Your task to perform on an android device: change notifications settings Image 0: 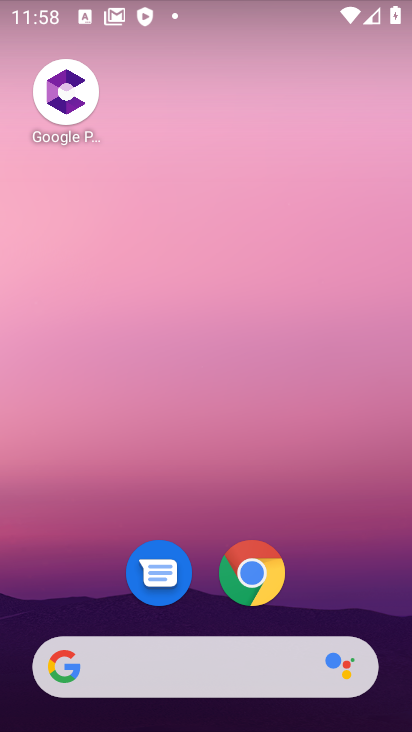
Step 0: drag from (289, 478) to (284, 192)
Your task to perform on an android device: change notifications settings Image 1: 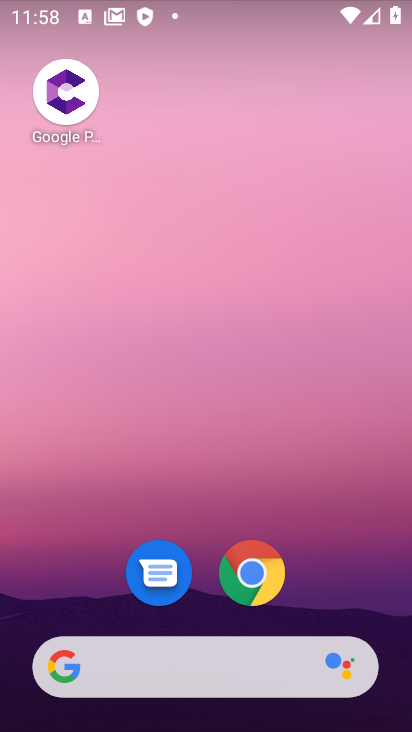
Step 1: drag from (333, 518) to (335, 0)
Your task to perform on an android device: change notifications settings Image 2: 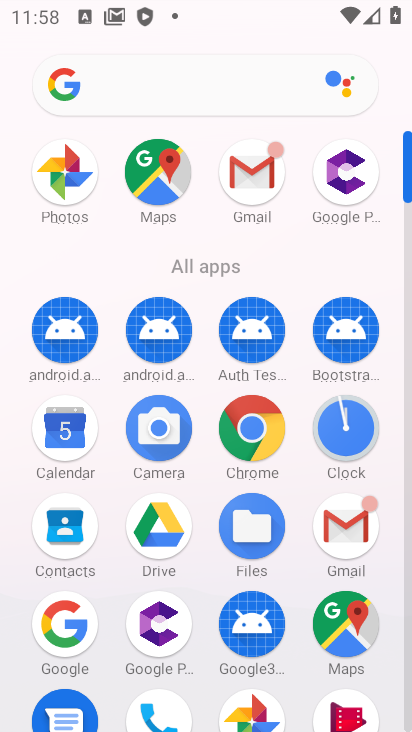
Step 2: drag from (177, 468) to (161, 193)
Your task to perform on an android device: change notifications settings Image 3: 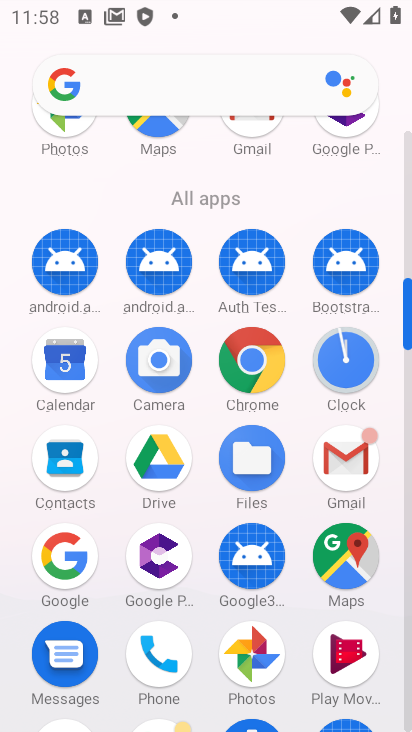
Step 3: drag from (170, 650) to (173, 276)
Your task to perform on an android device: change notifications settings Image 4: 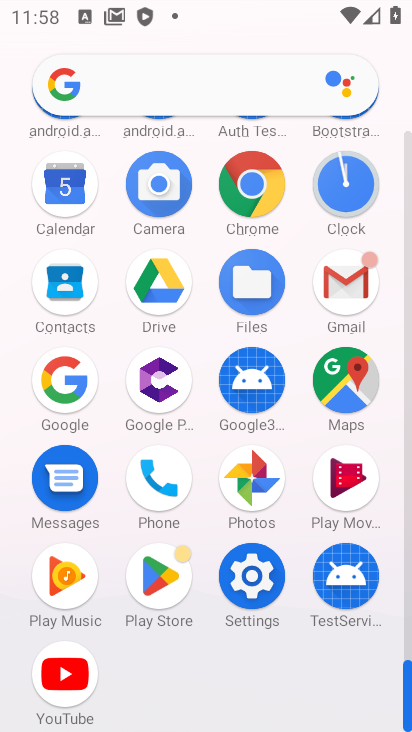
Step 4: click (255, 589)
Your task to perform on an android device: change notifications settings Image 5: 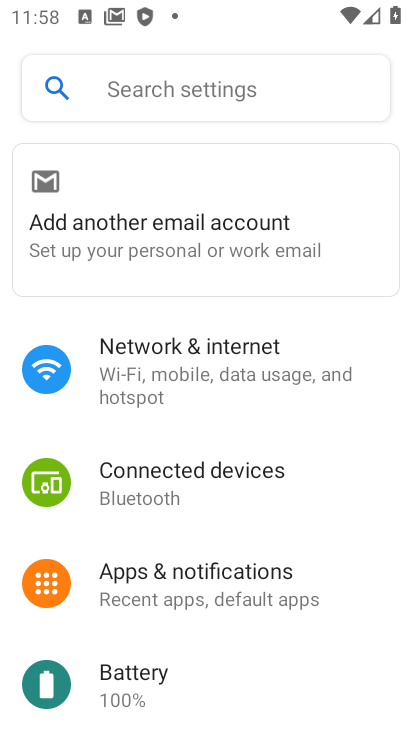
Step 5: task complete